Your task to perform on an android device: Open calendar and show me the third week of next month Image 0: 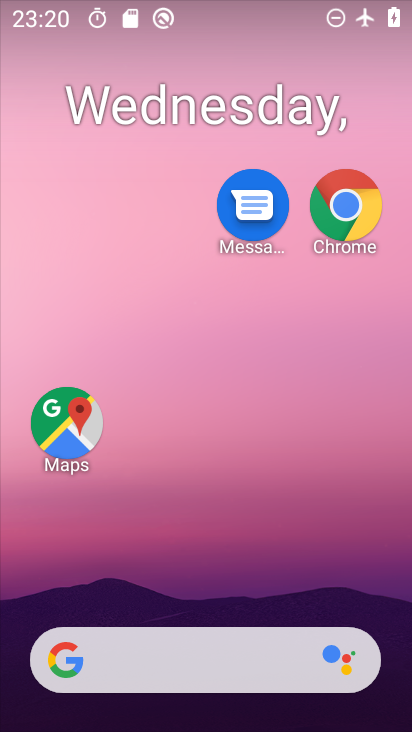
Step 0: drag from (200, 559) to (275, 18)
Your task to perform on an android device: Open calendar and show me the third week of next month Image 1: 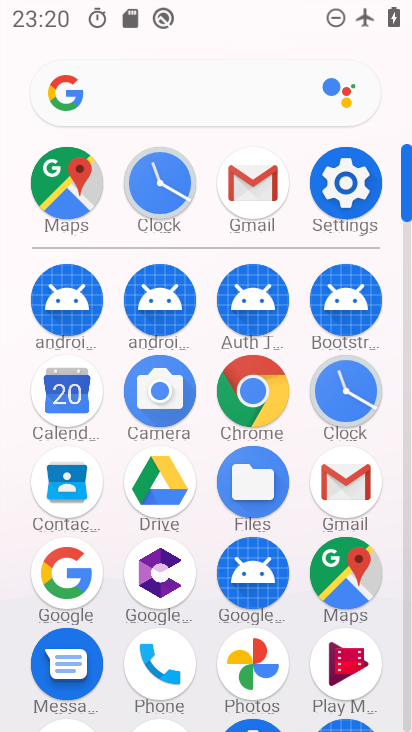
Step 1: click (64, 408)
Your task to perform on an android device: Open calendar and show me the third week of next month Image 2: 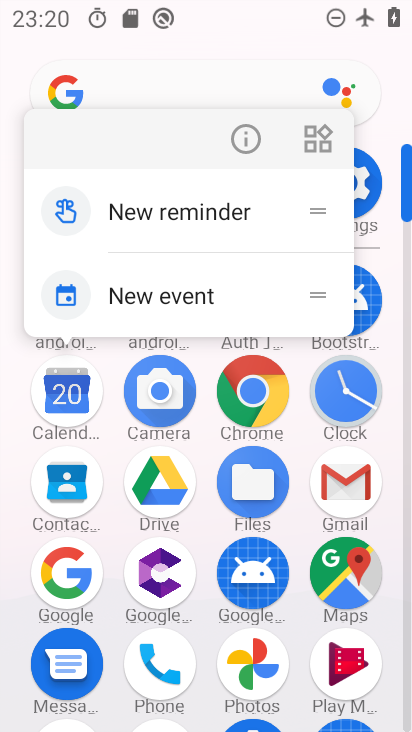
Step 2: click (247, 138)
Your task to perform on an android device: Open calendar and show me the third week of next month Image 3: 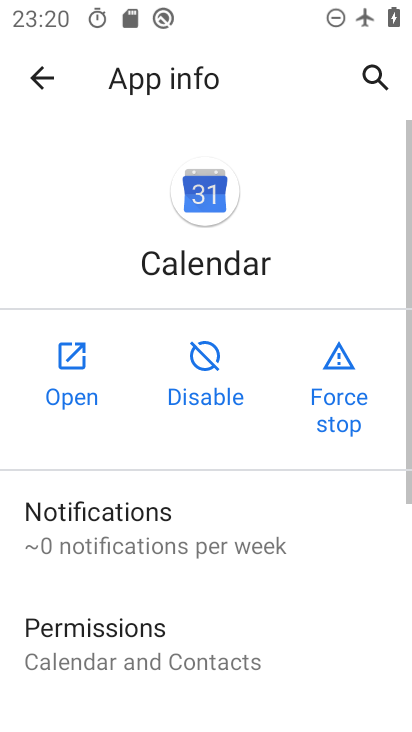
Step 3: click (68, 351)
Your task to perform on an android device: Open calendar and show me the third week of next month Image 4: 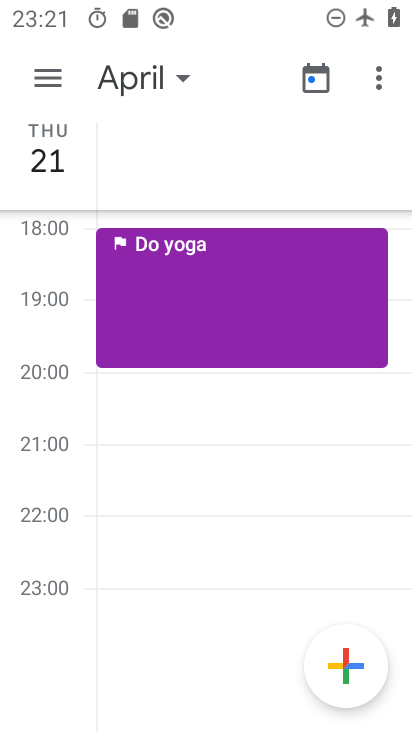
Step 4: click (126, 83)
Your task to perform on an android device: Open calendar and show me the third week of next month Image 5: 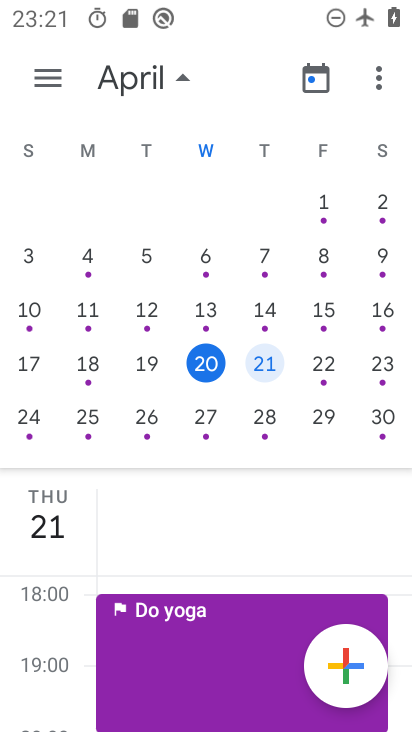
Step 5: drag from (284, 360) to (45, 411)
Your task to perform on an android device: Open calendar and show me the third week of next month Image 6: 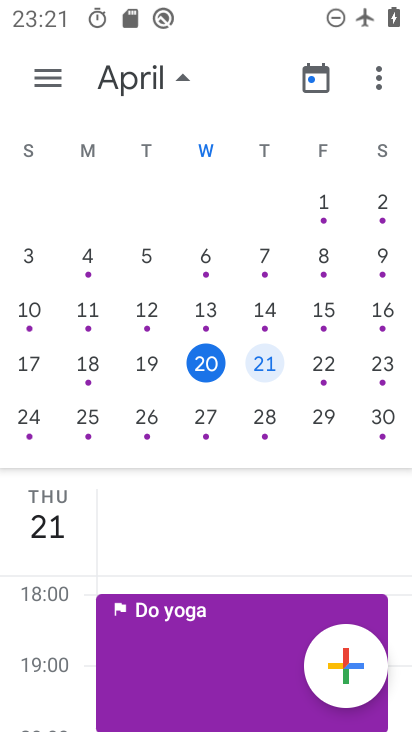
Step 6: drag from (329, 333) to (3, 354)
Your task to perform on an android device: Open calendar and show me the third week of next month Image 7: 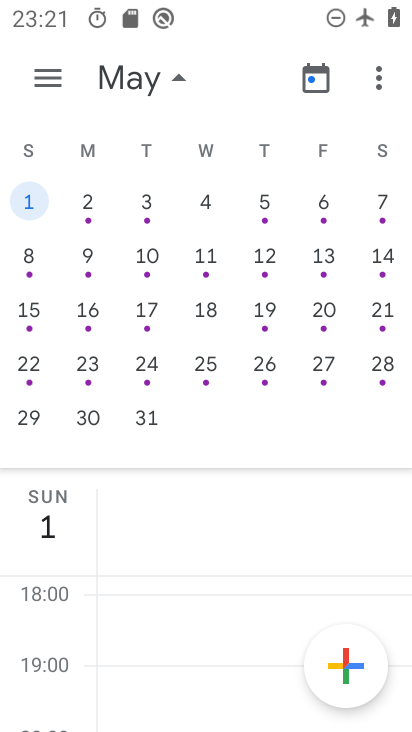
Step 7: click (264, 312)
Your task to perform on an android device: Open calendar and show me the third week of next month Image 8: 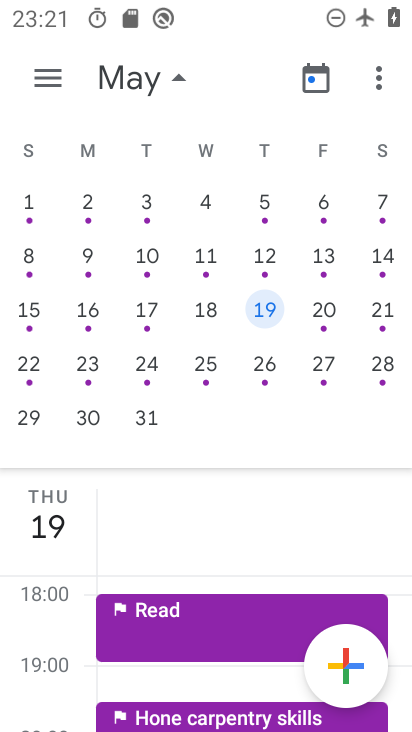
Step 8: task complete